Your task to perform on an android device: delete location history Image 0: 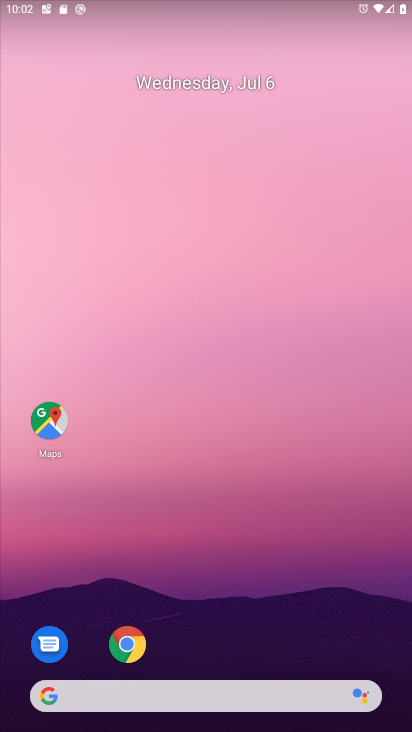
Step 0: drag from (253, 696) to (295, 264)
Your task to perform on an android device: delete location history Image 1: 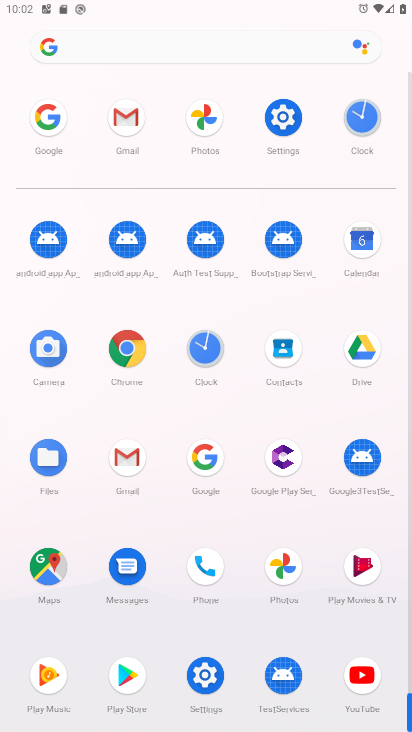
Step 1: click (287, 131)
Your task to perform on an android device: delete location history Image 2: 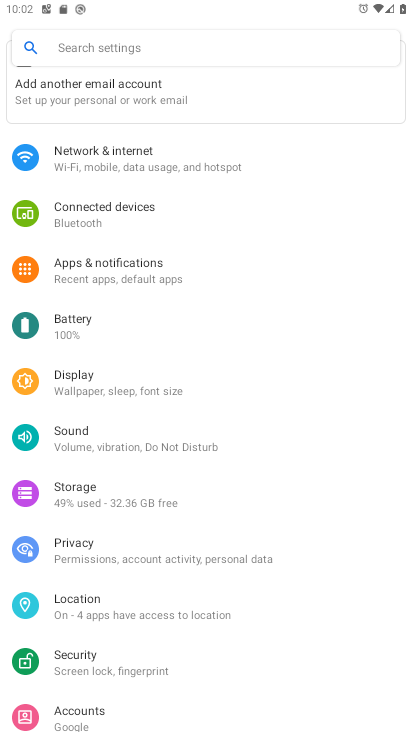
Step 2: click (192, 597)
Your task to perform on an android device: delete location history Image 3: 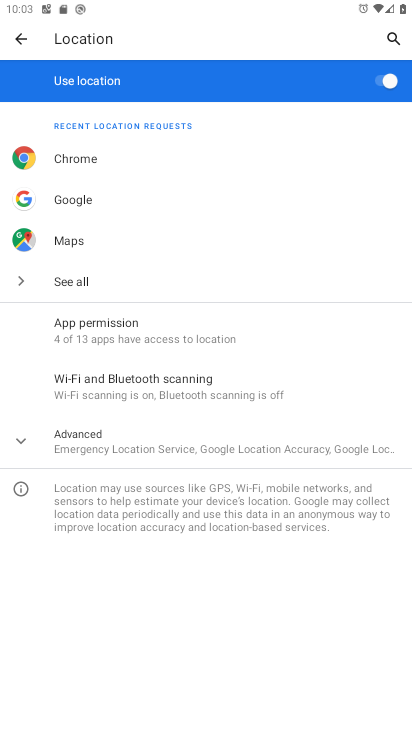
Step 3: click (188, 436)
Your task to perform on an android device: delete location history Image 4: 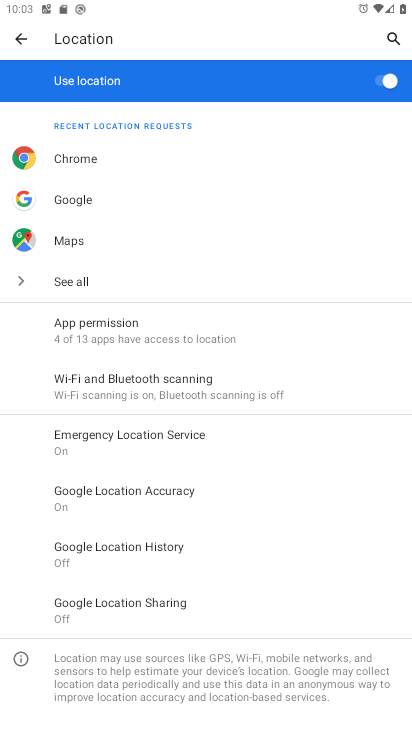
Step 4: click (160, 543)
Your task to perform on an android device: delete location history Image 5: 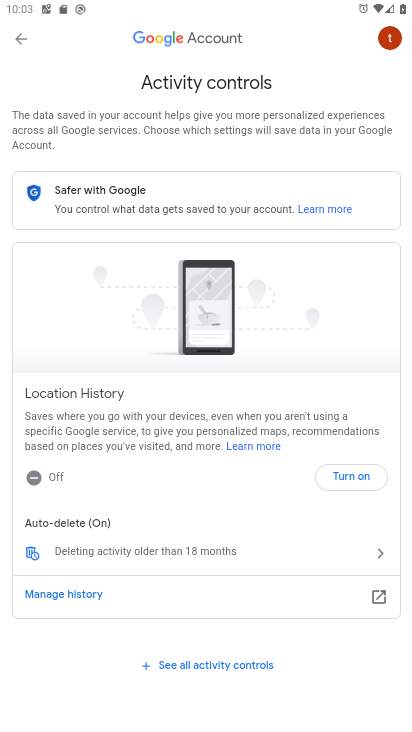
Step 5: click (135, 550)
Your task to perform on an android device: delete location history Image 6: 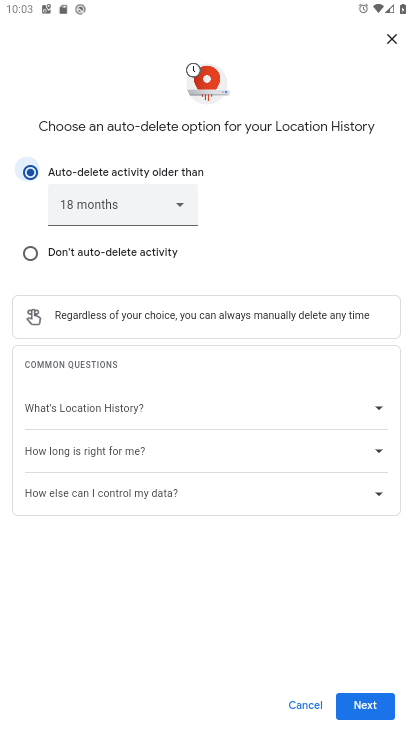
Step 6: click (366, 702)
Your task to perform on an android device: delete location history Image 7: 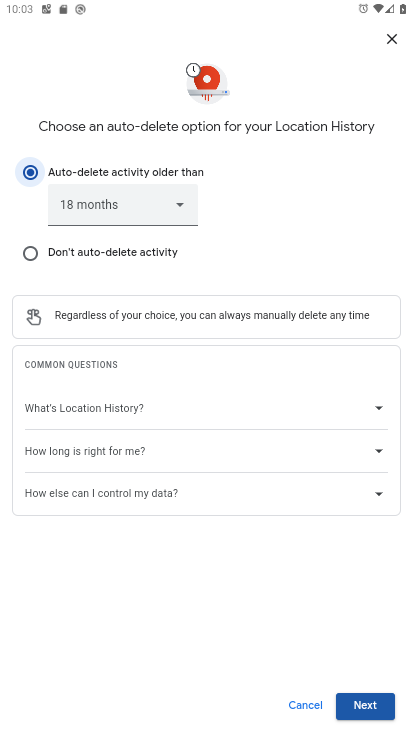
Step 7: click (371, 711)
Your task to perform on an android device: delete location history Image 8: 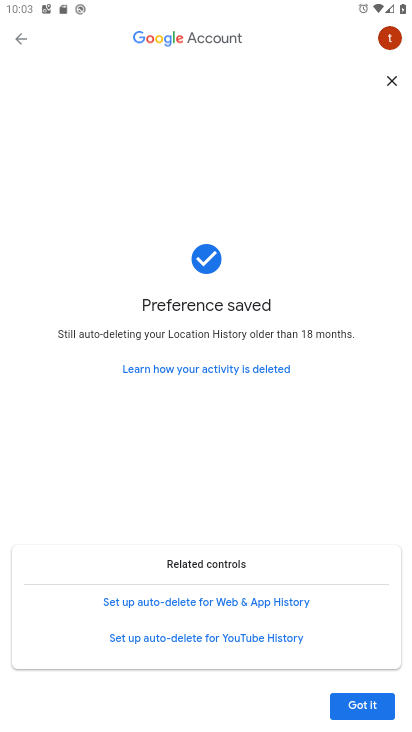
Step 8: click (365, 706)
Your task to perform on an android device: delete location history Image 9: 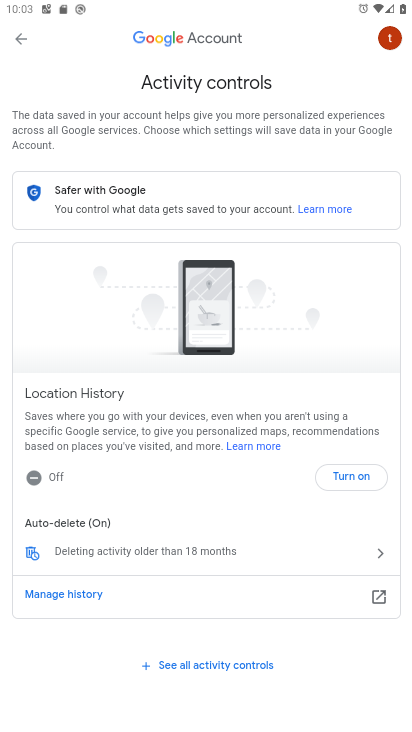
Step 9: task complete